Your task to perform on an android device: Open Google Maps and go to "Timeline" Image 0: 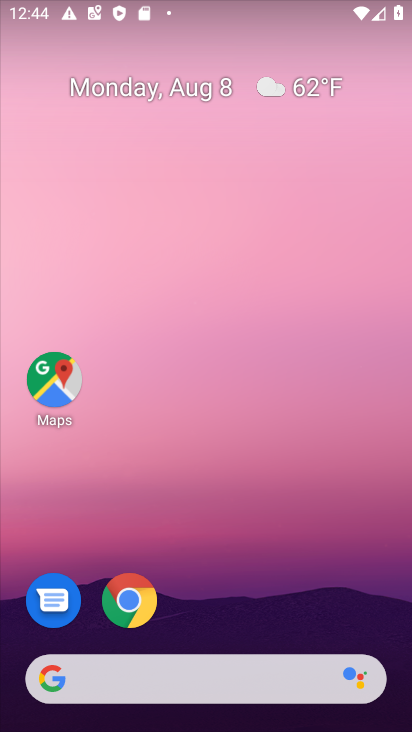
Step 0: click (64, 372)
Your task to perform on an android device: Open Google Maps and go to "Timeline" Image 1: 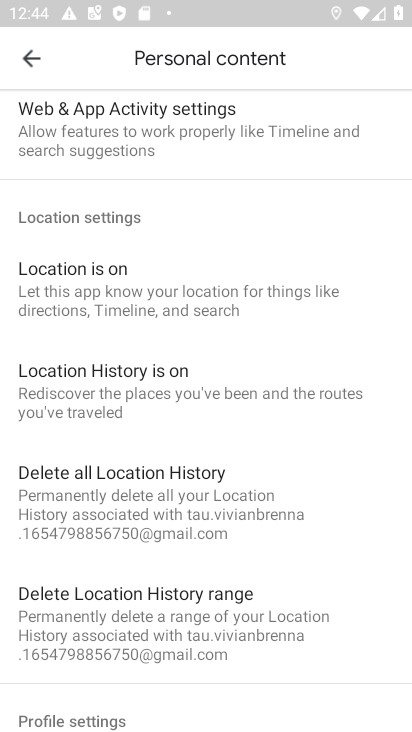
Step 1: click (33, 56)
Your task to perform on an android device: Open Google Maps and go to "Timeline" Image 2: 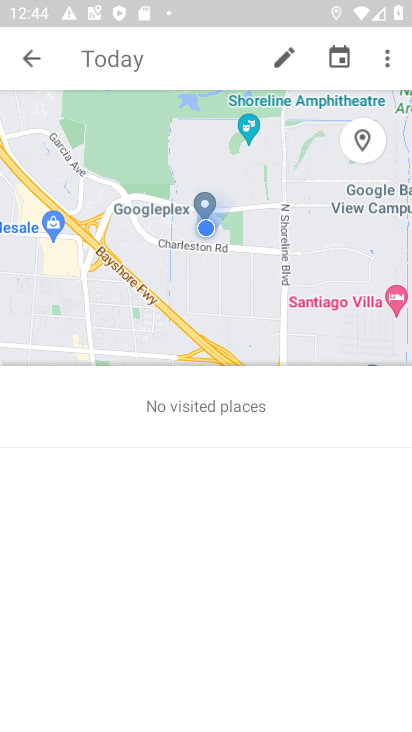
Step 2: task complete